Your task to perform on an android device: turn off translation in the chrome app Image 0: 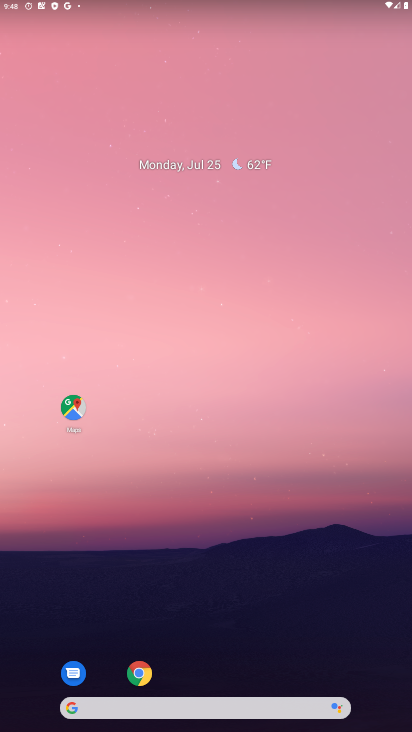
Step 0: drag from (203, 629) to (319, 74)
Your task to perform on an android device: turn off translation in the chrome app Image 1: 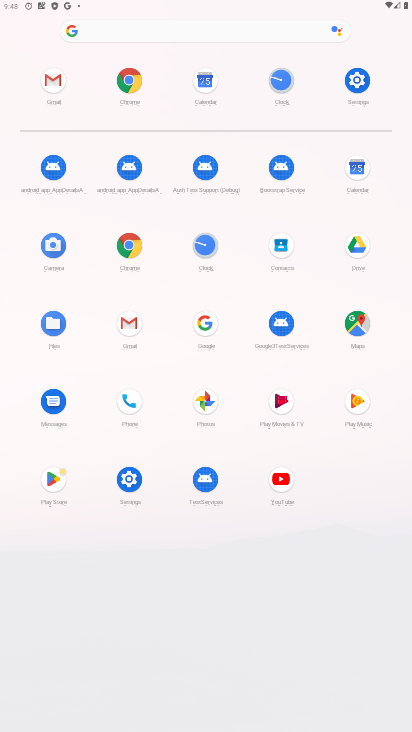
Step 1: click (130, 234)
Your task to perform on an android device: turn off translation in the chrome app Image 2: 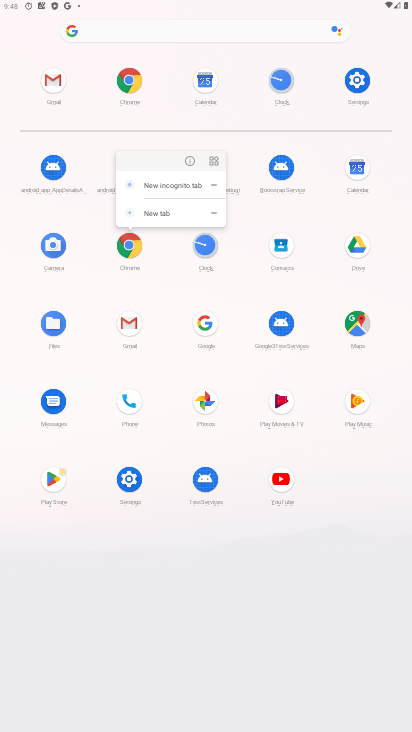
Step 2: click (189, 155)
Your task to perform on an android device: turn off translation in the chrome app Image 3: 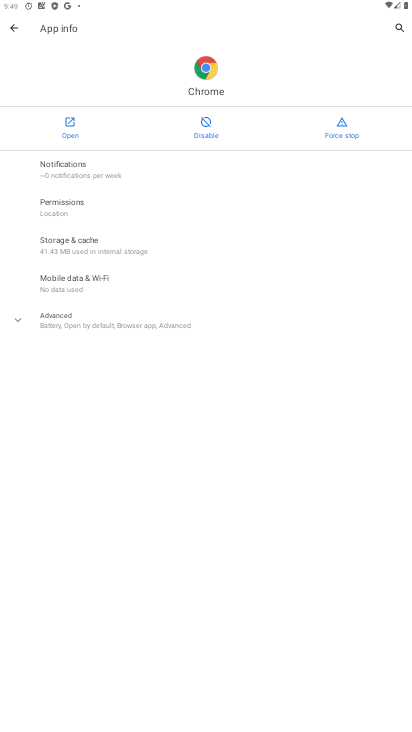
Step 3: drag from (278, 643) to (291, 229)
Your task to perform on an android device: turn off translation in the chrome app Image 4: 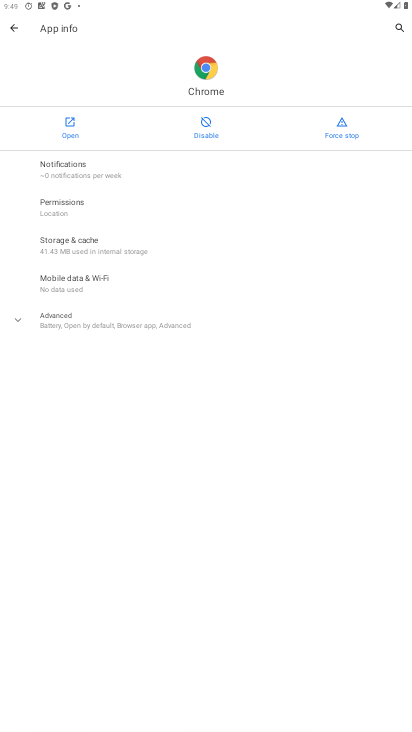
Step 4: click (72, 124)
Your task to perform on an android device: turn off translation in the chrome app Image 5: 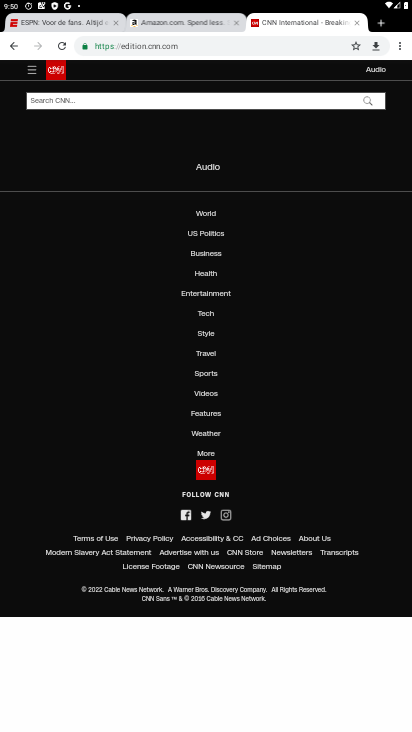
Step 5: drag from (246, 553) to (311, 265)
Your task to perform on an android device: turn off translation in the chrome app Image 6: 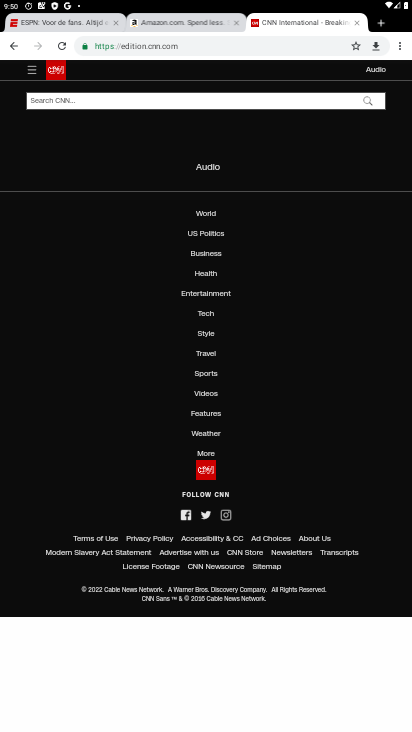
Step 6: drag from (293, 245) to (251, 716)
Your task to perform on an android device: turn off translation in the chrome app Image 7: 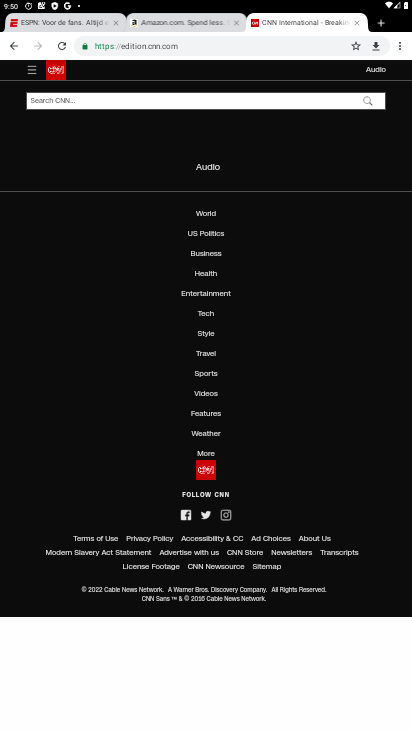
Step 7: drag from (398, 35) to (327, 305)
Your task to perform on an android device: turn off translation in the chrome app Image 8: 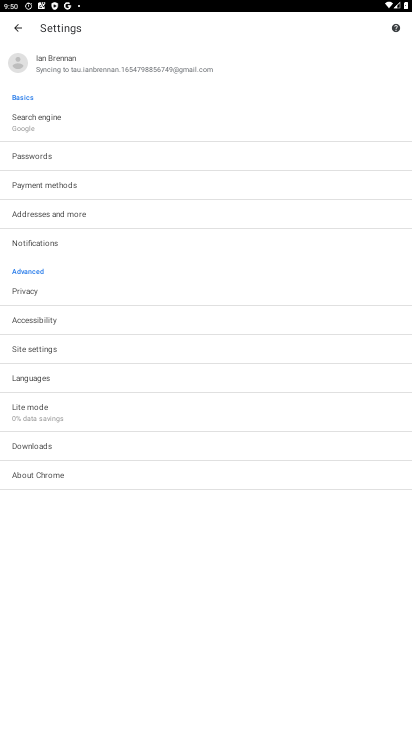
Step 8: click (68, 376)
Your task to perform on an android device: turn off translation in the chrome app Image 9: 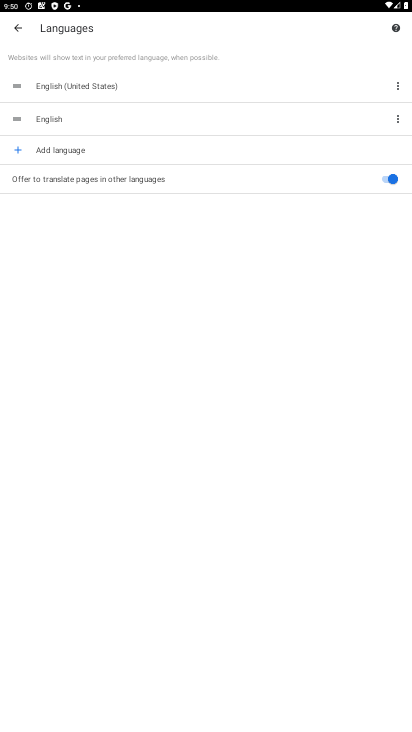
Step 9: click (387, 168)
Your task to perform on an android device: turn off translation in the chrome app Image 10: 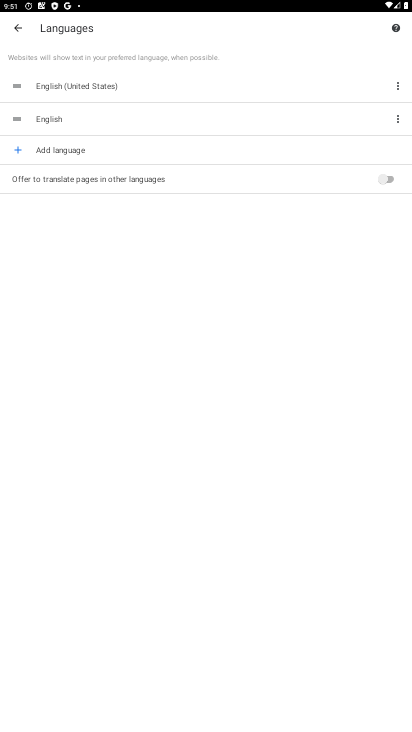
Step 10: task complete